Your task to perform on an android device: check storage Image 0: 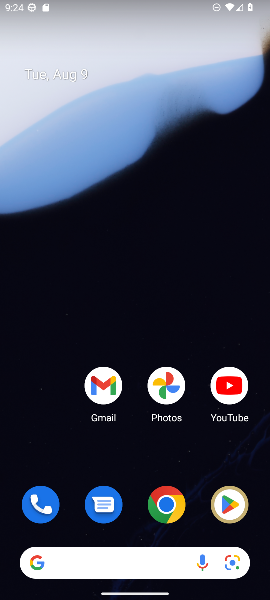
Step 0: drag from (133, 461) to (111, 71)
Your task to perform on an android device: check storage Image 1: 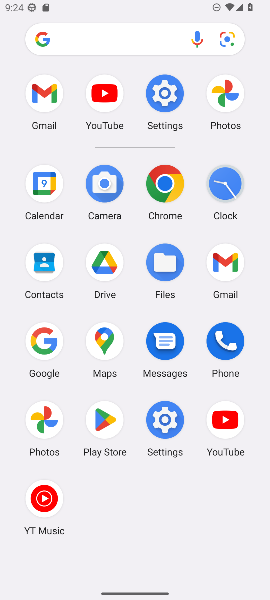
Step 1: click (162, 420)
Your task to perform on an android device: check storage Image 2: 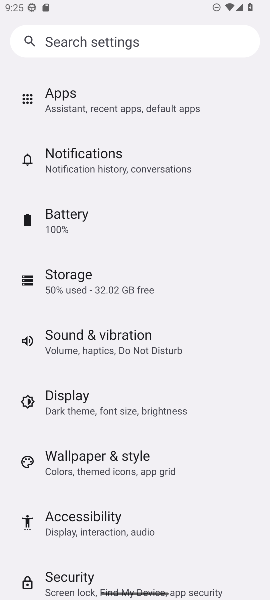
Step 2: click (80, 274)
Your task to perform on an android device: check storage Image 3: 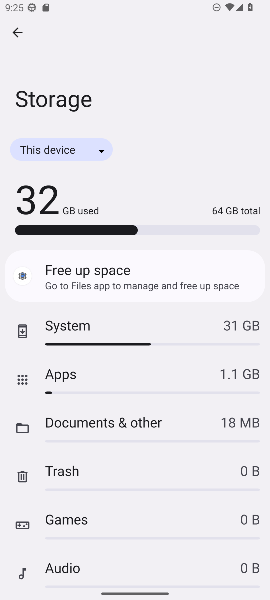
Step 3: task complete